Your task to perform on an android device: check google app version Image 0: 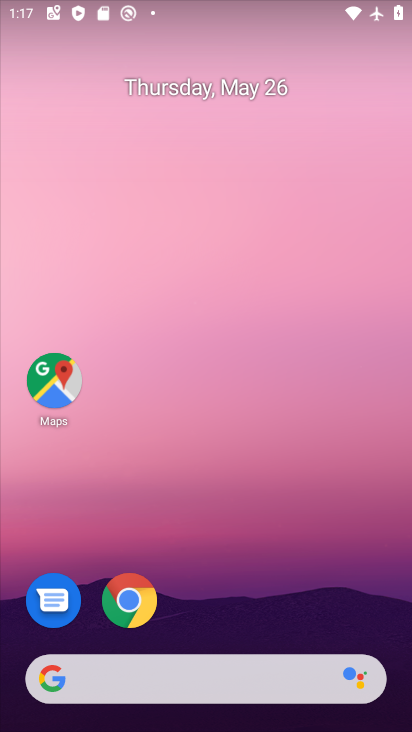
Step 0: drag from (301, 552) to (289, 133)
Your task to perform on an android device: check google app version Image 1: 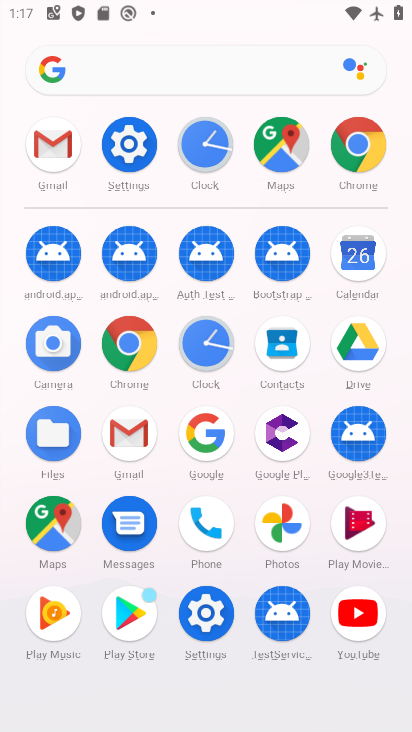
Step 1: click (200, 441)
Your task to perform on an android device: check google app version Image 2: 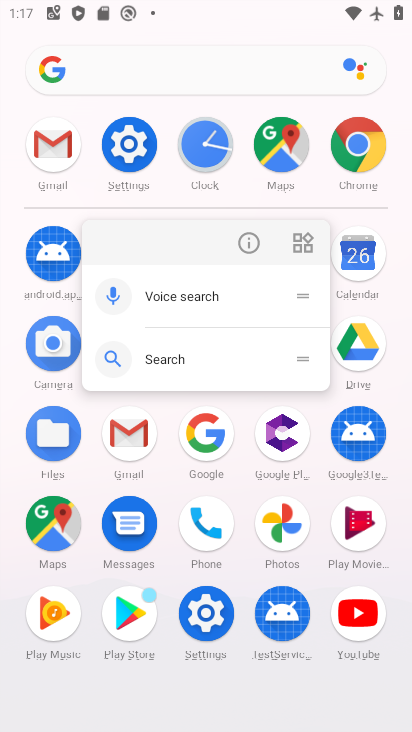
Step 2: click (241, 248)
Your task to perform on an android device: check google app version Image 3: 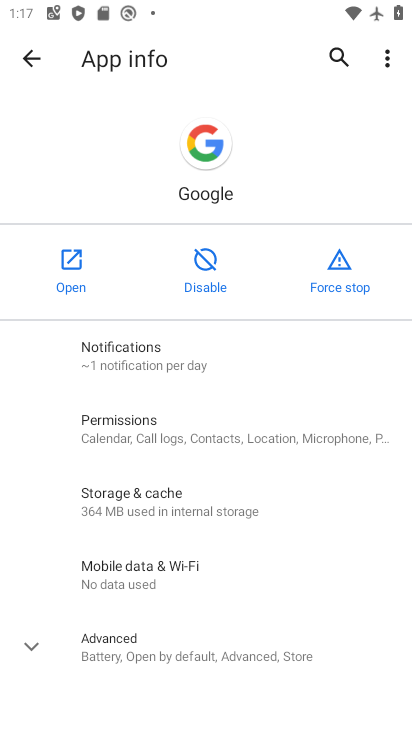
Step 3: drag from (179, 539) to (267, 102)
Your task to perform on an android device: check google app version Image 4: 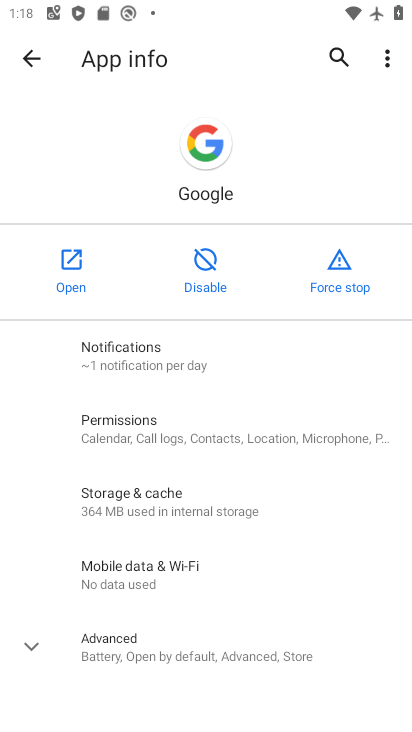
Step 4: click (113, 626)
Your task to perform on an android device: check google app version Image 5: 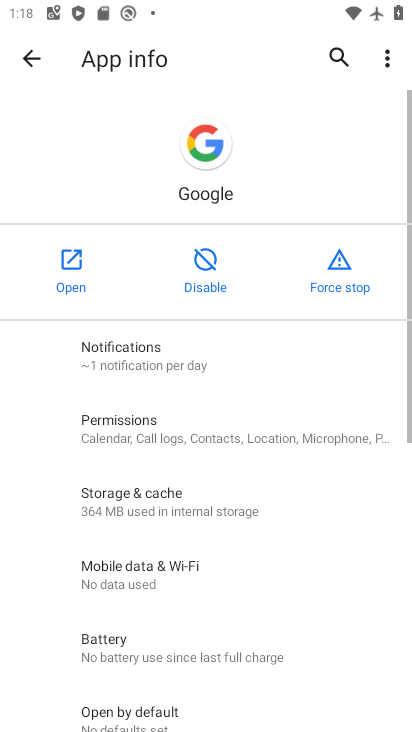
Step 5: drag from (158, 633) to (244, 12)
Your task to perform on an android device: check google app version Image 6: 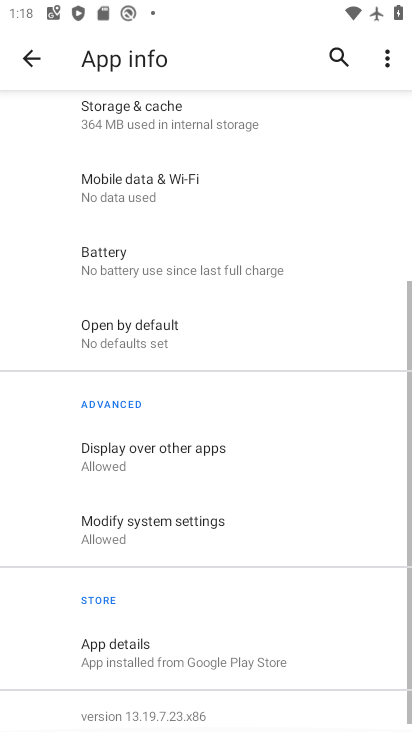
Step 6: drag from (205, 509) to (114, 0)
Your task to perform on an android device: check google app version Image 7: 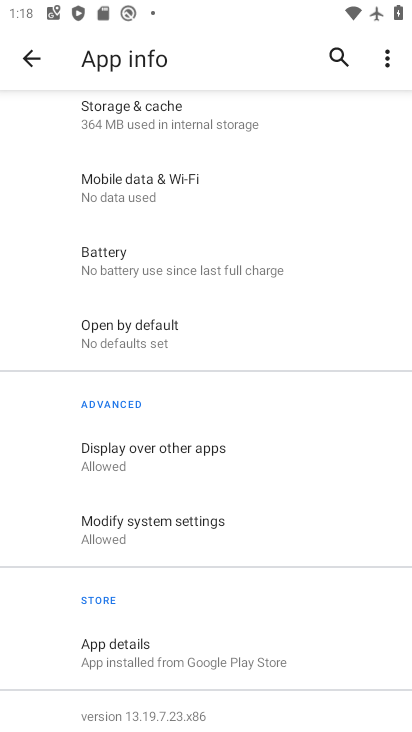
Step 7: drag from (193, 621) to (292, 218)
Your task to perform on an android device: check google app version Image 8: 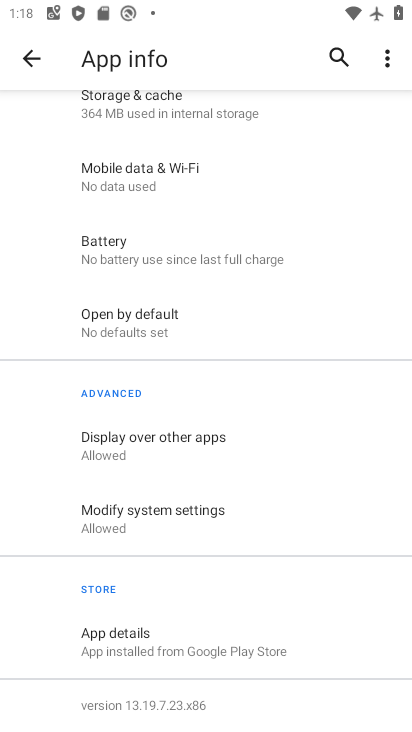
Step 8: click (201, 715)
Your task to perform on an android device: check google app version Image 9: 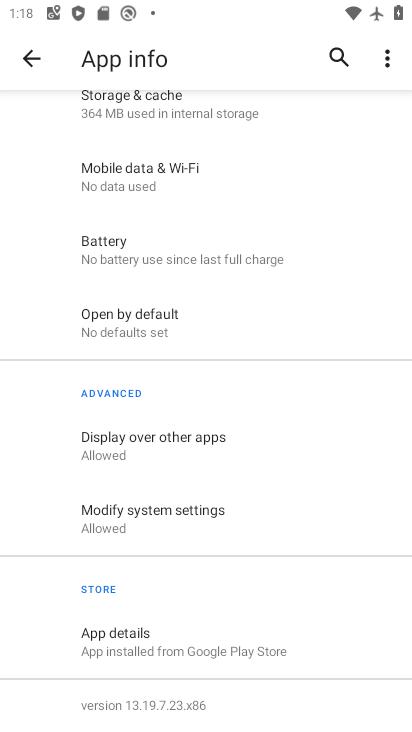
Step 9: task complete